Your task to perform on an android device: Go to privacy settings Image 0: 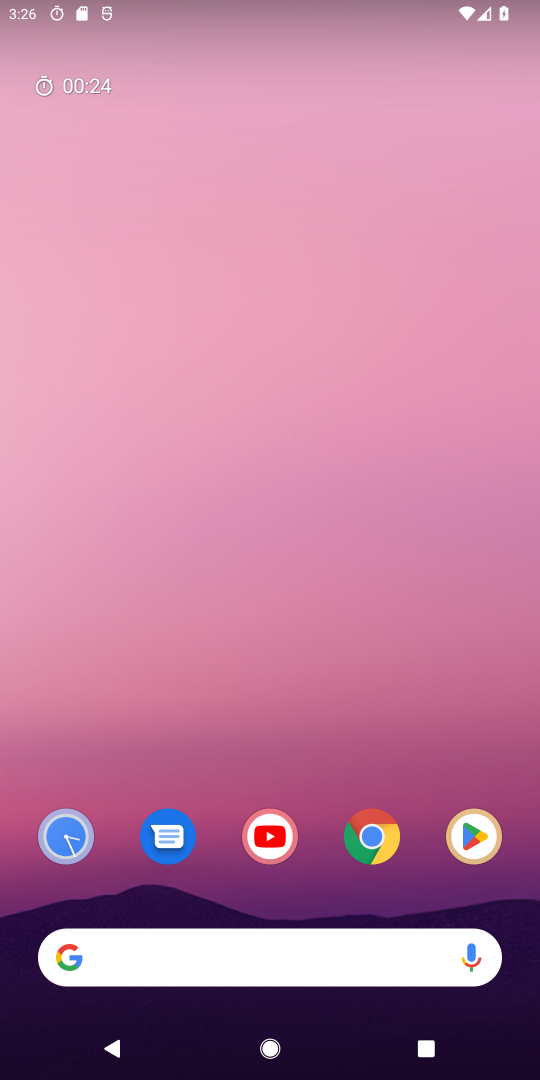
Step 0: drag from (263, 264) to (279, 173)
Your task to perform on an android device: Go to privacy settings Image 1: 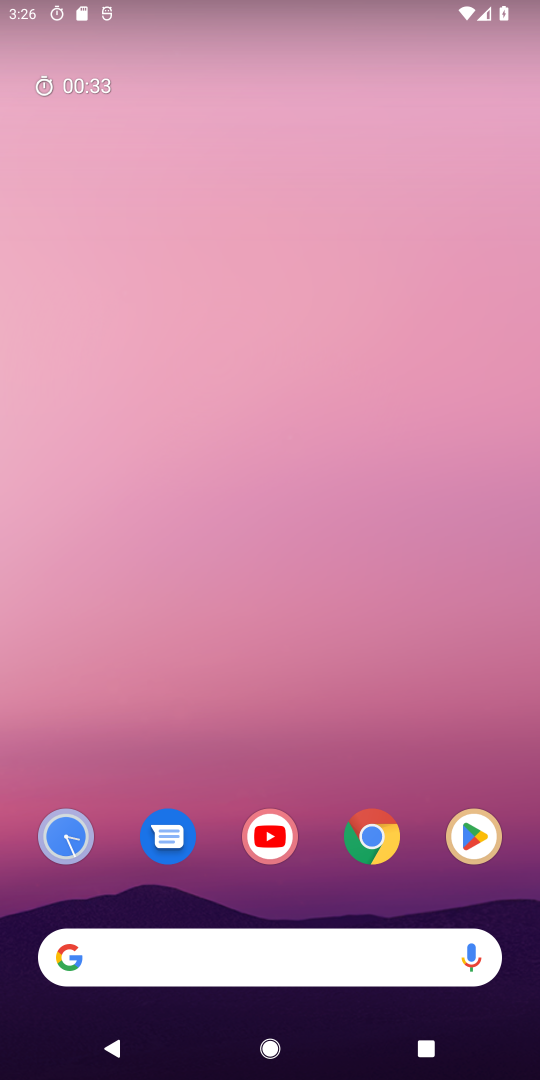
Step 1: drag from (235, 867) to (355, 230)
Your task to perform on an android device: Go to privacy settings Image 2: 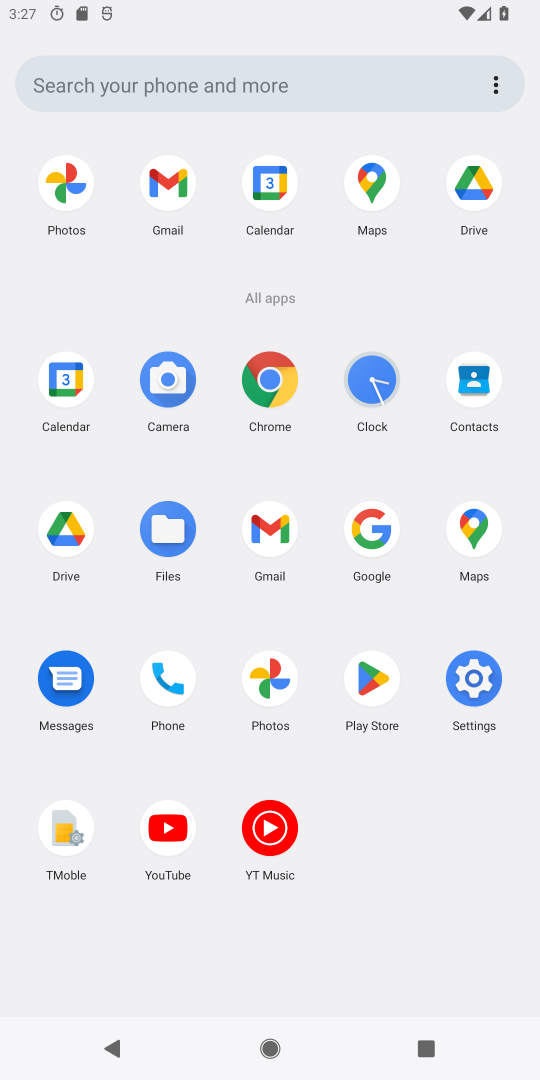
Step 2: drag from (210, 973) to (296, 328)
Your task to perform on an android device: Go to privacy settings Image 3: 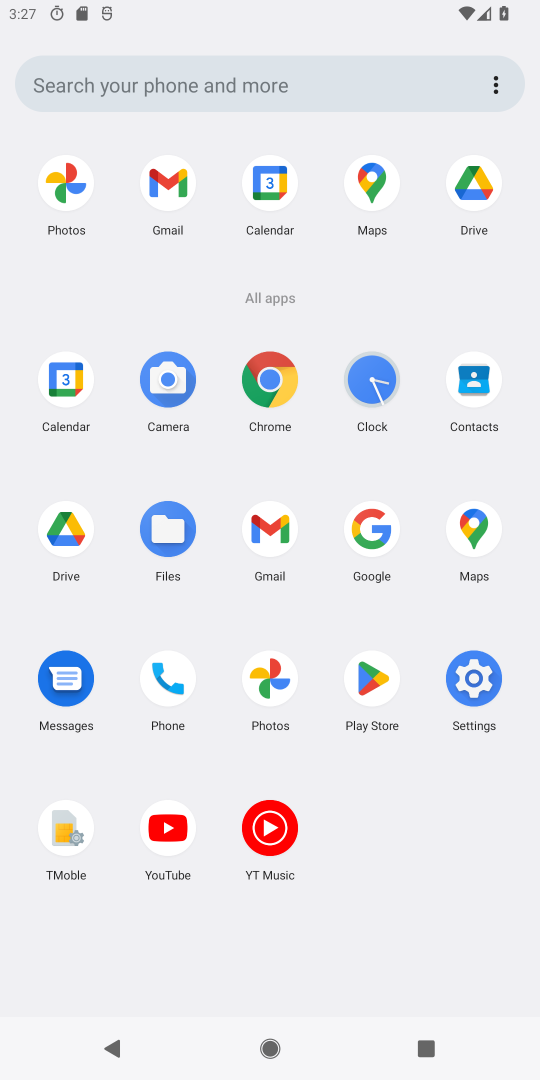
Step 3: click (472, 677)
Your task to perform on an android device: Go to privacy settings Image 4: 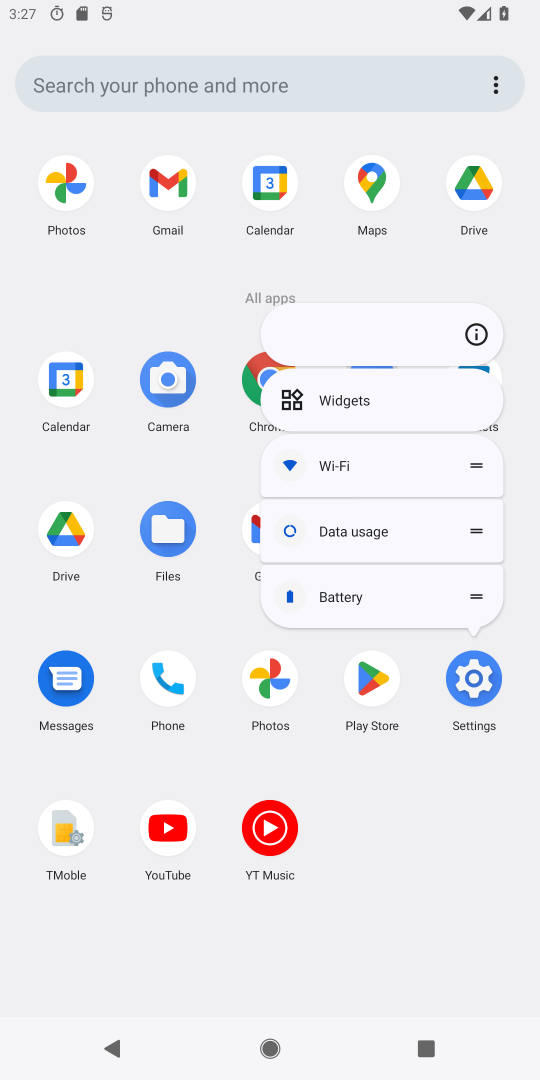
Step 4: click (484, 331)
Your task to perform on an android device: Go to privacy settings Image 5: 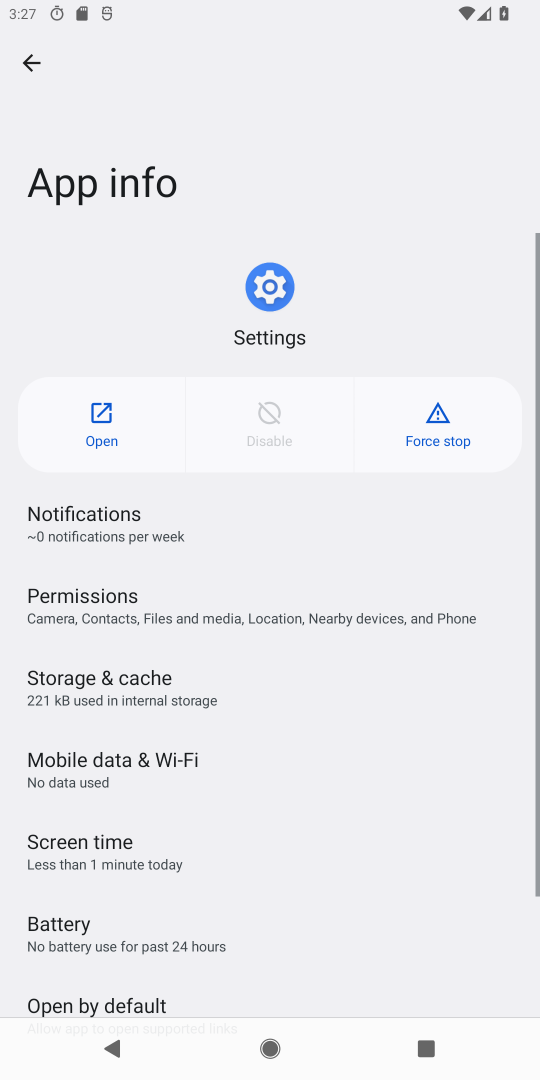
Step 5: click (92, 422)
Your task to perform on an android device: Go to privacy settings Image 6: 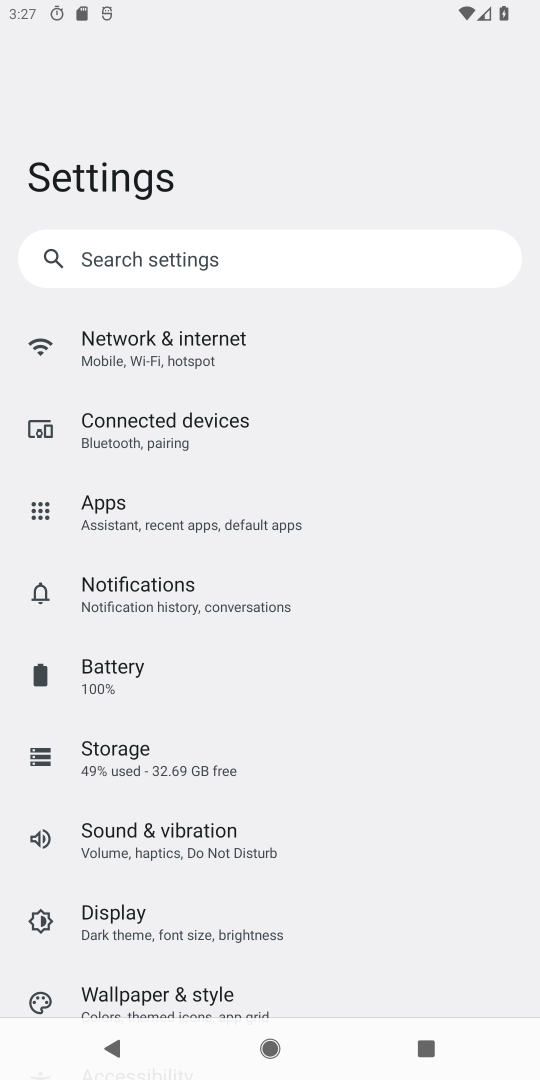
Step 6: drag from (263, 839) to (358, 126)
Your task to perform on an android device: Go to privacy settings Image 7: 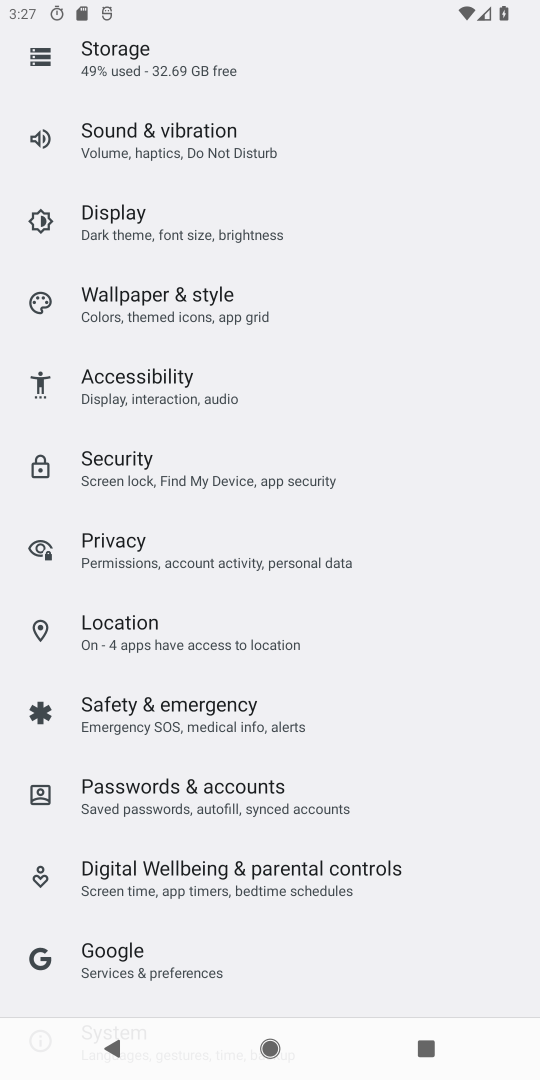
Step 7: drag from (254, 787) to (308, 171)
Your task to perform on an android device: Go to privacy settings Image 8: 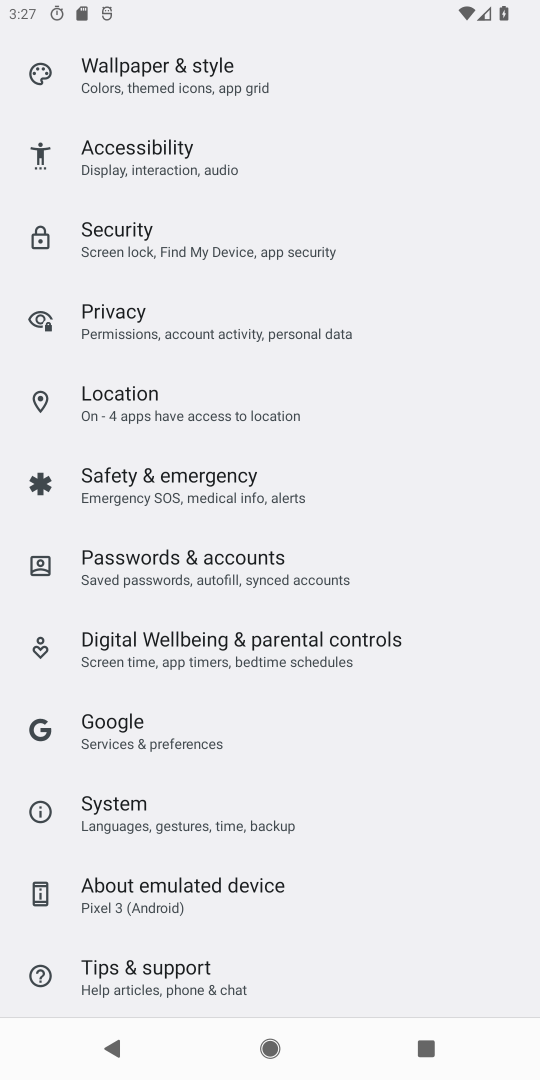
Step 8: drag from (221, 221) to (381, 1078)
Your task to perform on an android device: Go to privacy settings Image 9: 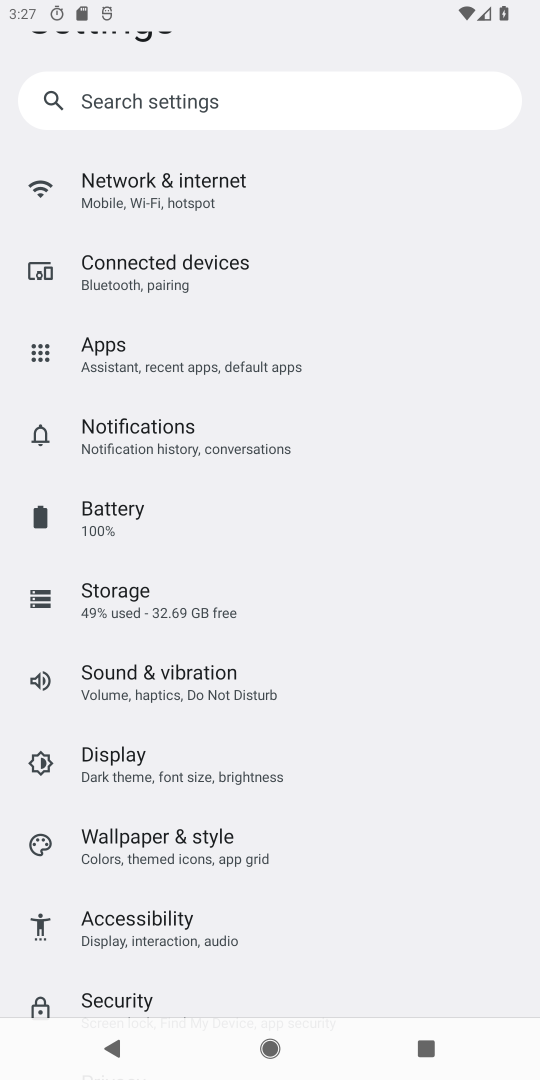
Step 9: drag from (242, 243) to (522, 740)
Your task to perform on an android device: Go to privacy settings Image 10: 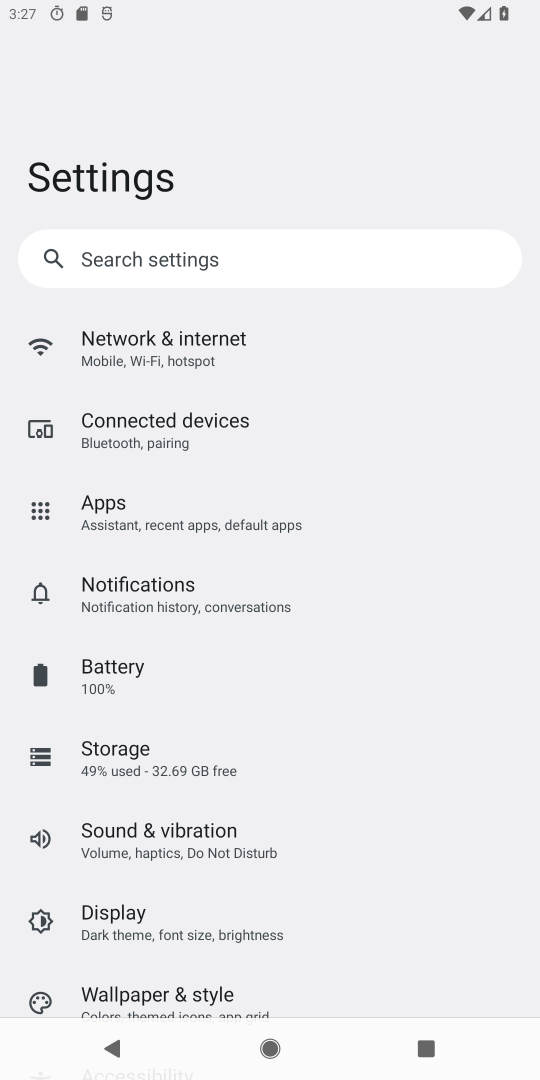
Step 10: drag from (276, 739) to (305, 230)
Your task to perform on an android device: Go to privacy settings Image 11: 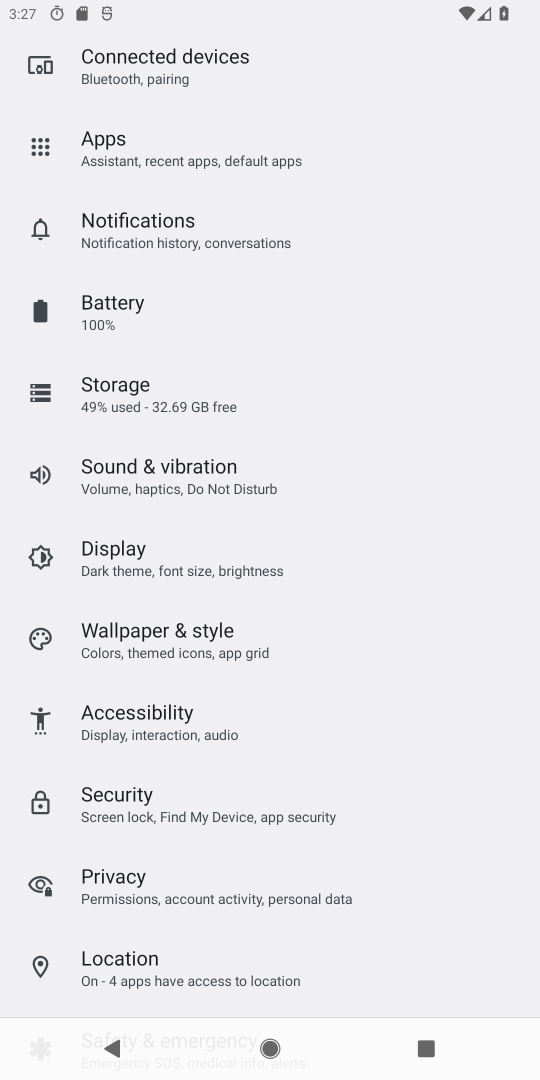
Step 11: drag from (355, 777) to (387, 913)
Your task to perform on an android device: Go to privacy settings Image 12: 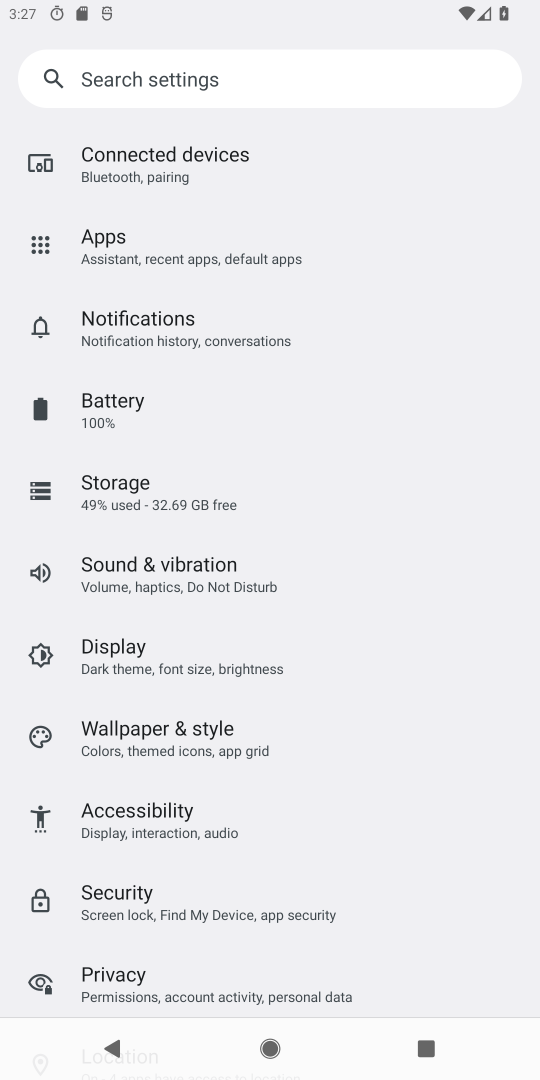
Step 12: drag from (184, 331) to (224, 872)
Your task to perform on an android device: Go to privacy settings Image 13: 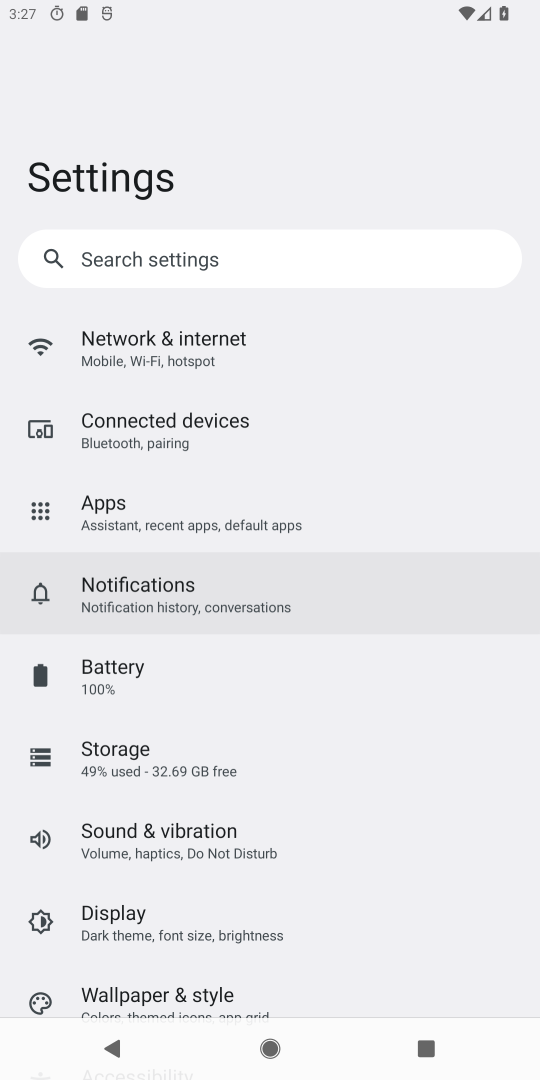
Step 13: drag from (257, 840) to (324, 184)
Your task to perform on an android device: Go to privacy settings Image 14: 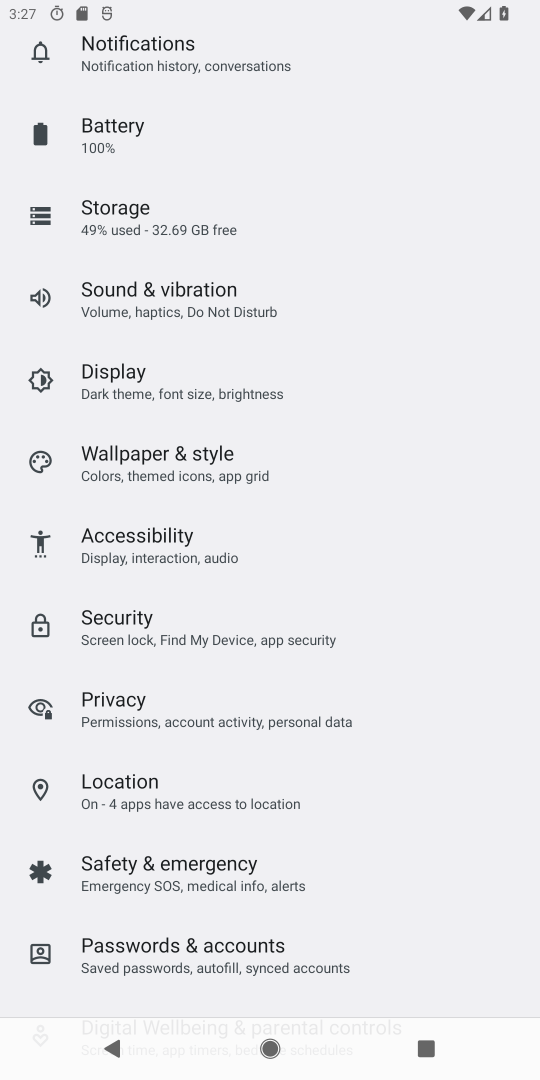
Step 14: drag from (252, 95) to (297, 735)
Your task to perform on an android device: Go to privacy settings Image 15: 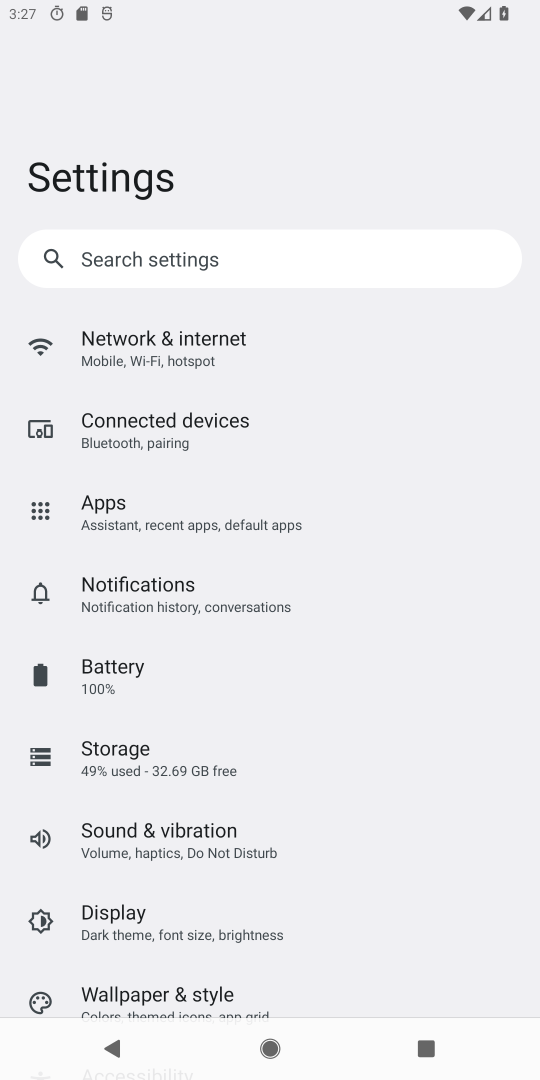
Step 15: drag from (238, 396) to (138, 791)
Your task to perform on an android device: Go to privacy settings Image 16: 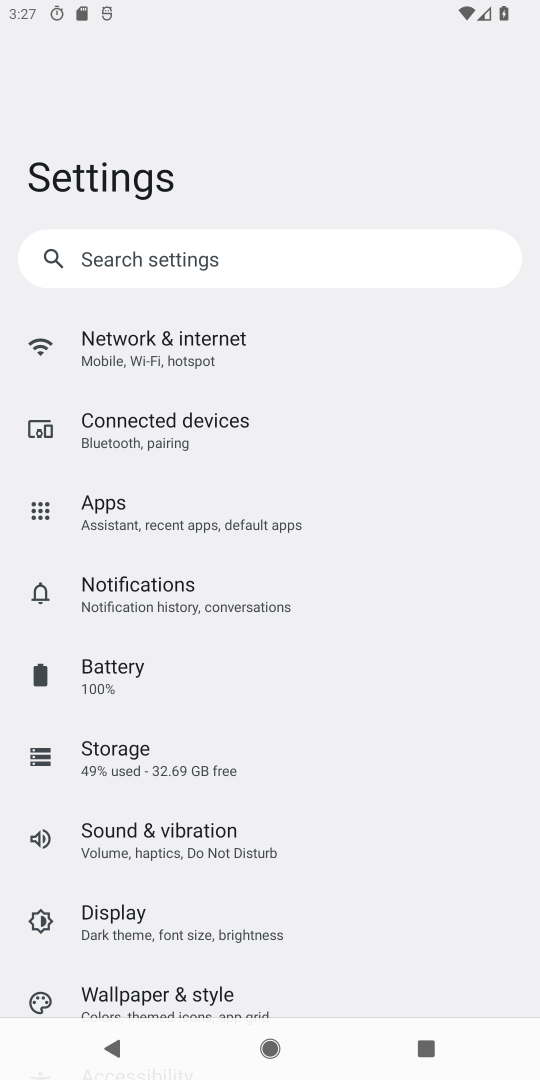
Step 16: drag from (213, 909) to (213, 379)
Your task to perform on an android device: Go to privacy settings Image 17: 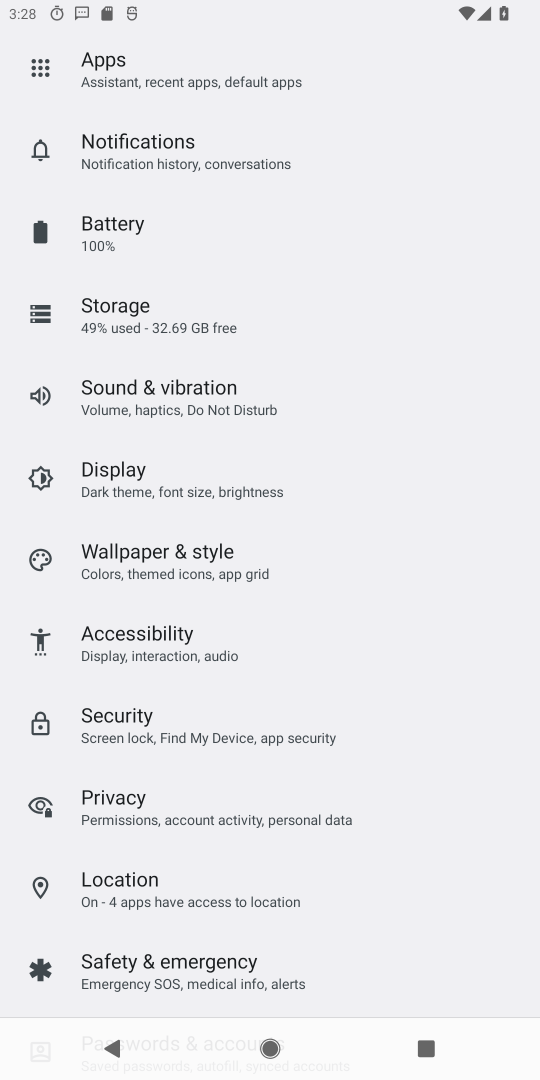
Step 17: click (140, 795)
Your task to perform on an android device: Go to privacy settings Image 18: 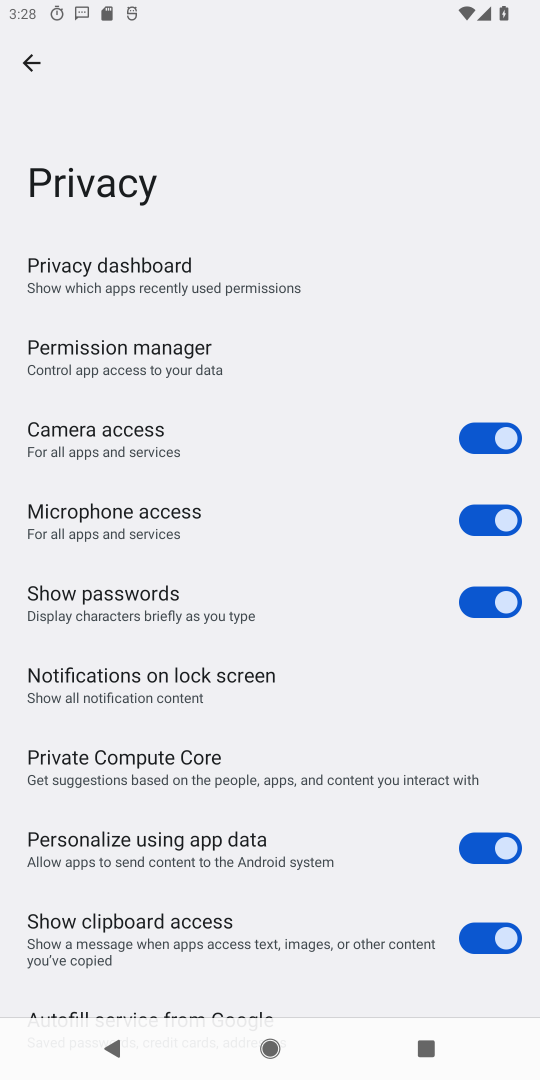
Step 18: drag from (263, 926) to (431, 66)
Your task to perform on an android device: Go to privacy settings Image 19: 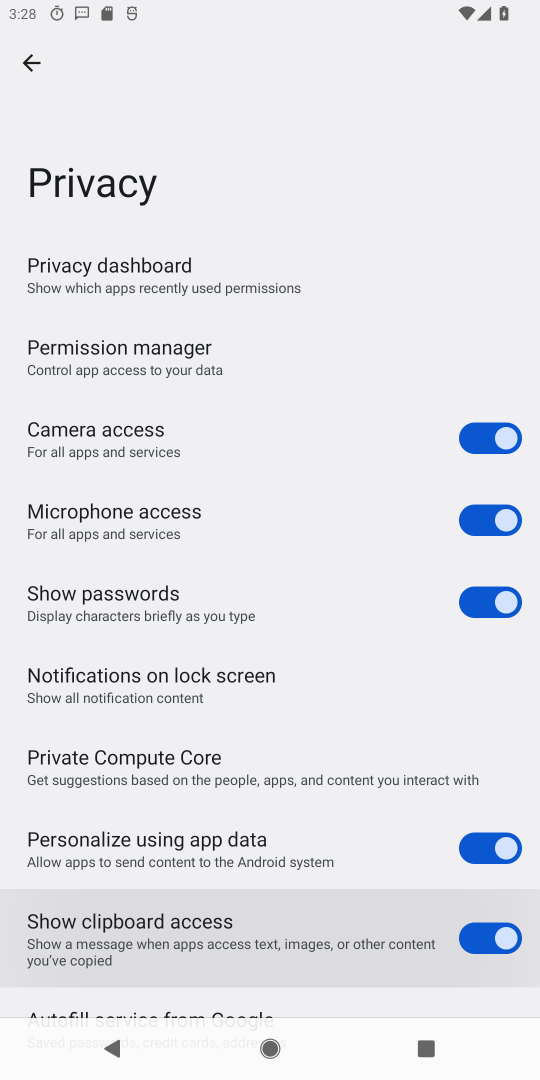
Step 19: click (328, 289)
Your task to perform on an android device: Go to privacy settings Image 20: 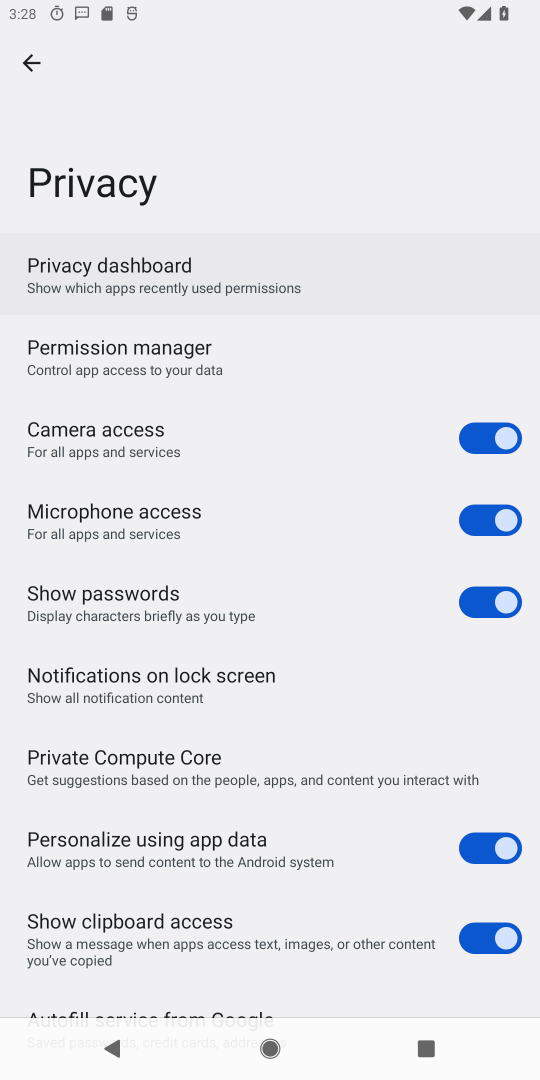
Step 20: drag from (148, 857) to (260, 321)
Your task to perform on an android device: Go to privacy settings Image 21: 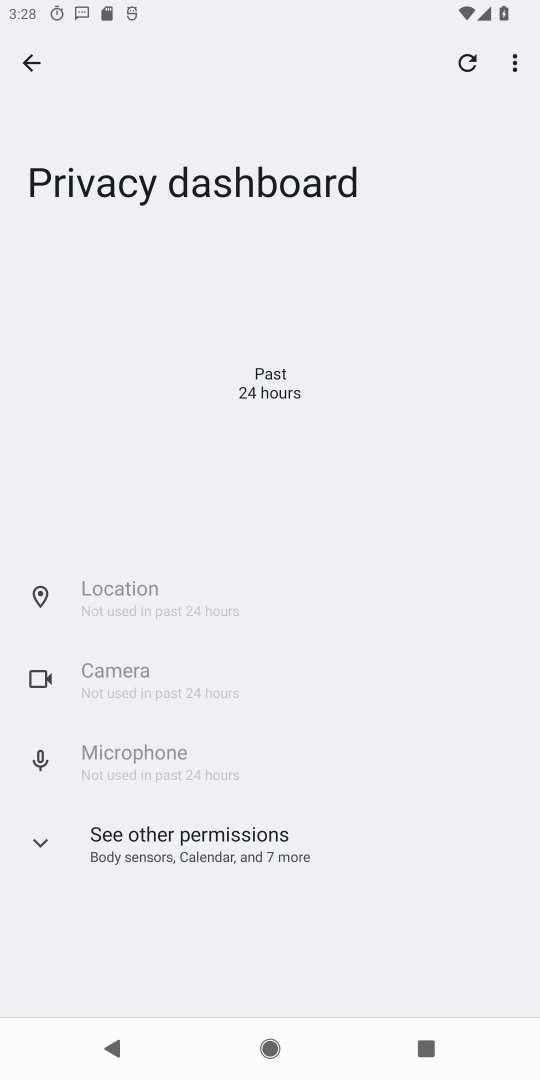
Step 21: click (34, 67)
Your task to perform on an android device: Go to privacy settings Image 22: 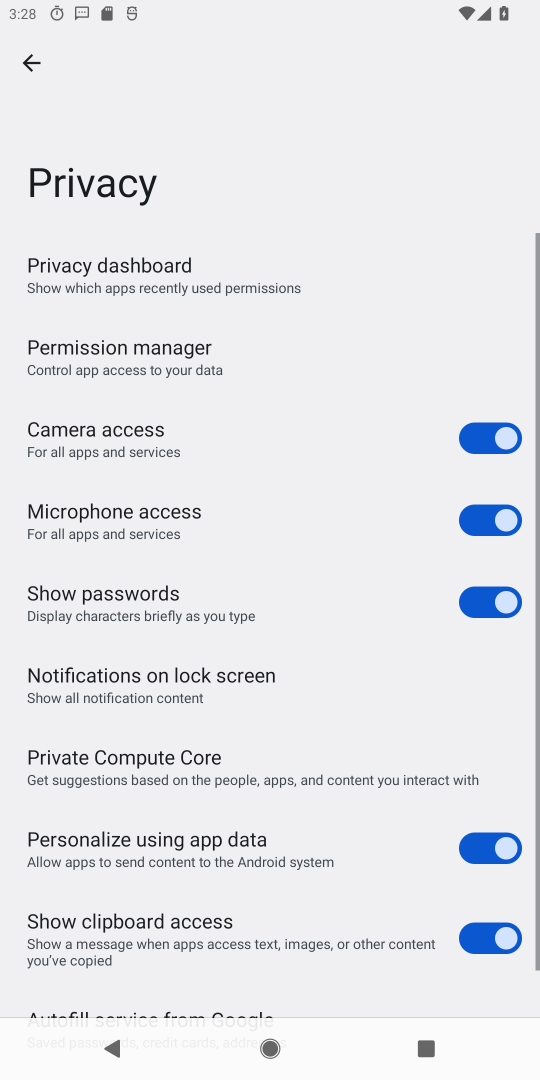
Step 22: task complete